Your task to perform on an android device: Search for sushi restaurants on Maps Image 0: 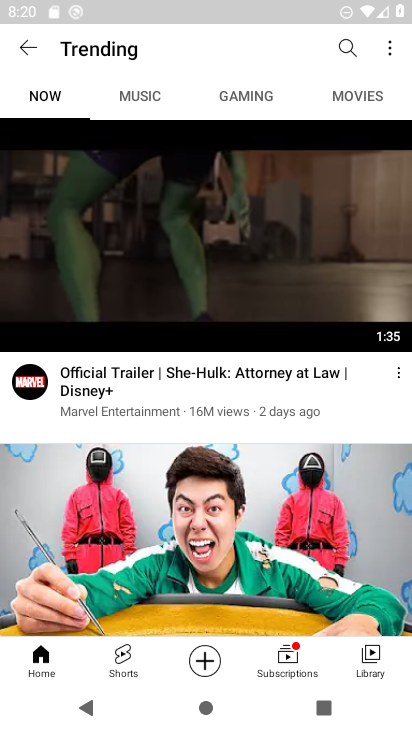
Step 0: press home button
Your task to perform on an android device: Search for sushi restaurants on Maps Image 1: 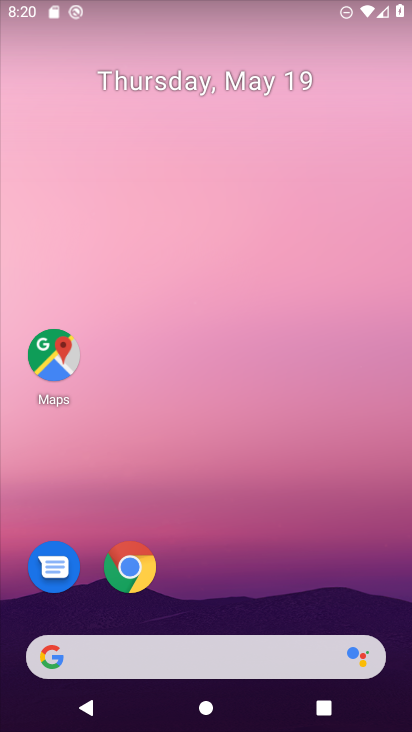
Step 1: click (33, 360)
Your task to perform on an android device: Search for sushi restaurants on Maps Image 2: 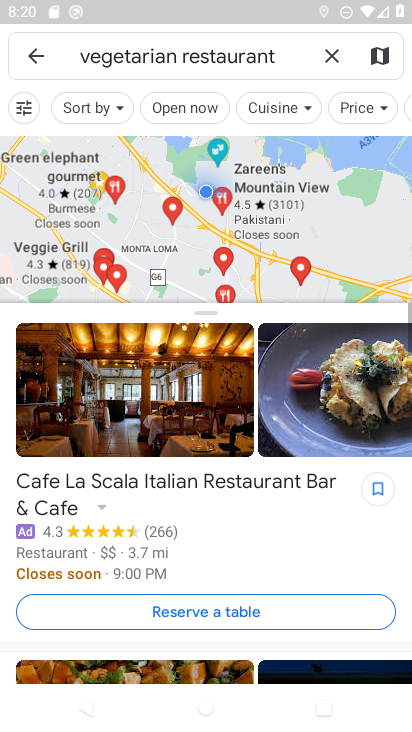
Step 2: click (328, 55)
Your task to perform on an android device: Search for sushi restaurants on Maps Image 3: 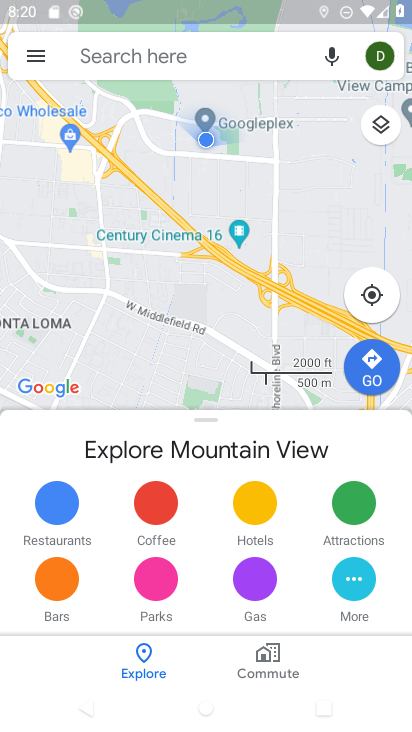
Step 3: click (185, 53)
Your task to perform on an android device: Search for sushi restaurants on Maps Image 4: 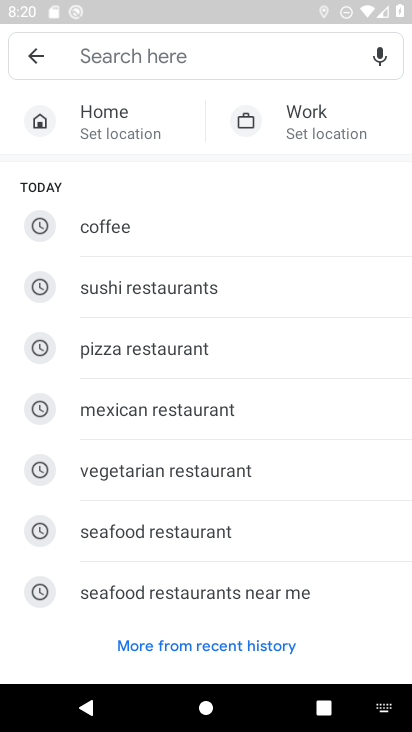
Step 4: click (208, 306)
Your task to perform on an android device: Search for sushi restaurants on Maps Image 5: 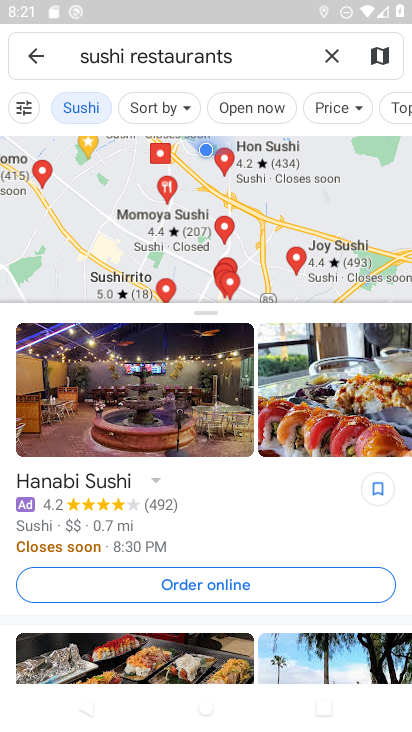
Step 5: task complete